Your task to perform on an android device: check battery use Image 0: 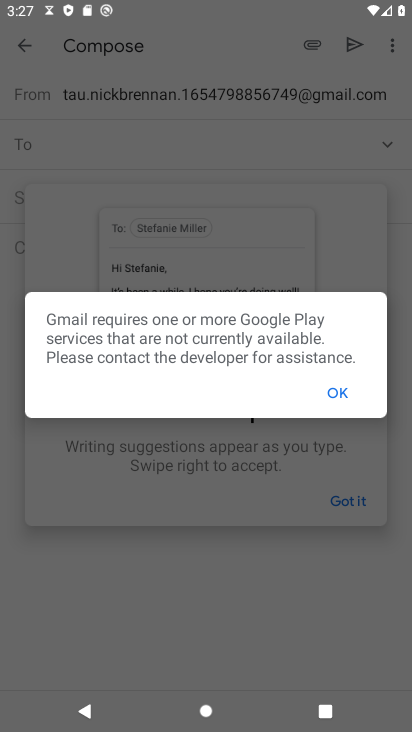
Step 0: press home button
Your task to perform on an android device: check battery use Image 1: 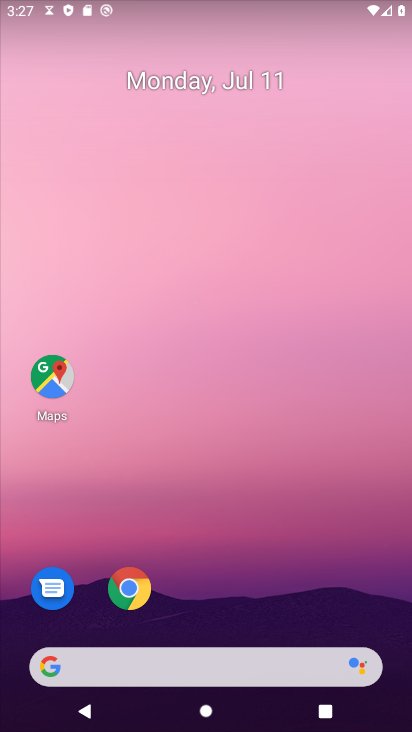
Step 1: drag from (294, 629) to (270, 4)
Your task to perform on an android device: check battery use Image 2: 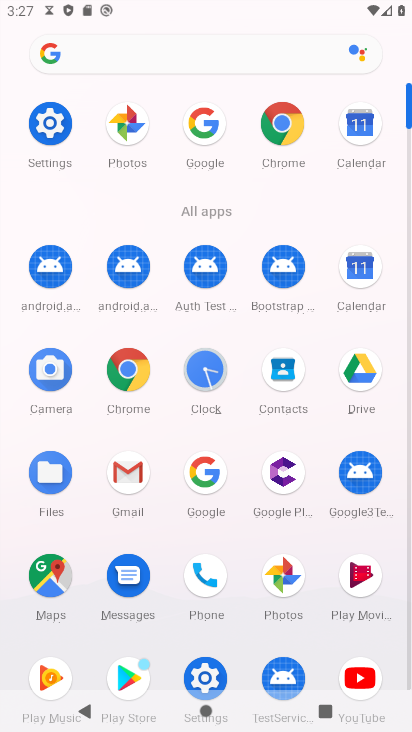
Step 2: click (37, 133)
Your task to perform on an android device: check battery use Image 3: 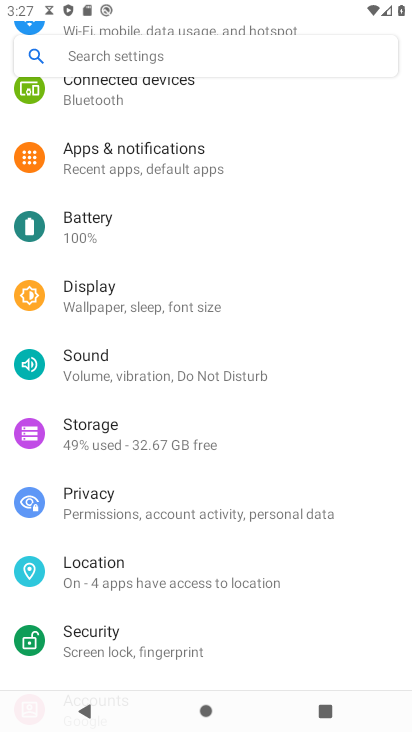
Step 3: drag from (230, 485) to (257, 644)
Your task to perform on an android device: check battery use Image 4: 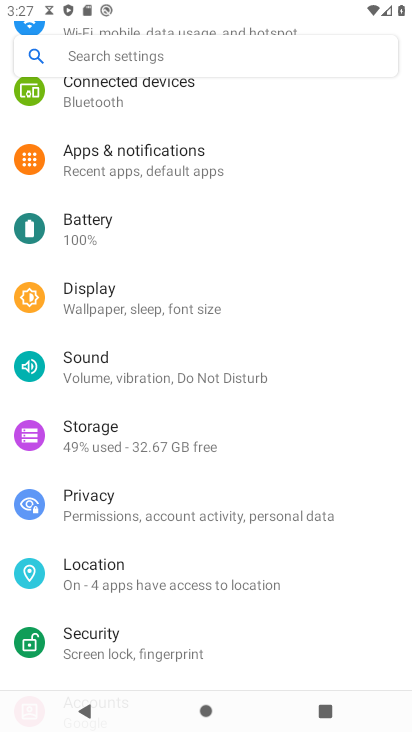
Step 4: click (116, 233)
Your task to perform on an android device: check battery use Image 5: 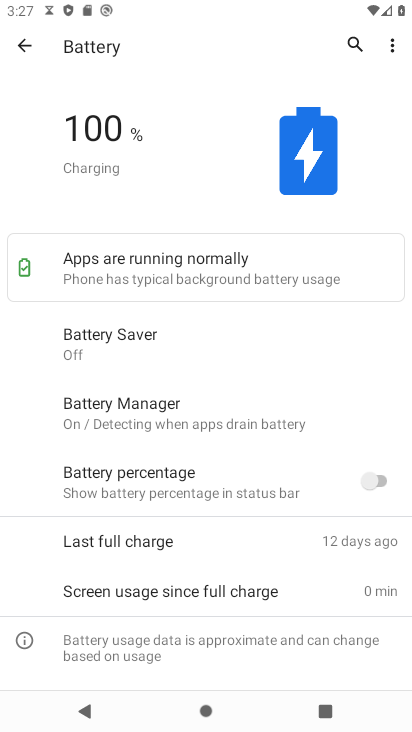
Step 5: click (389, 42)
Your task to perform on an android device: check battery use Image 6: 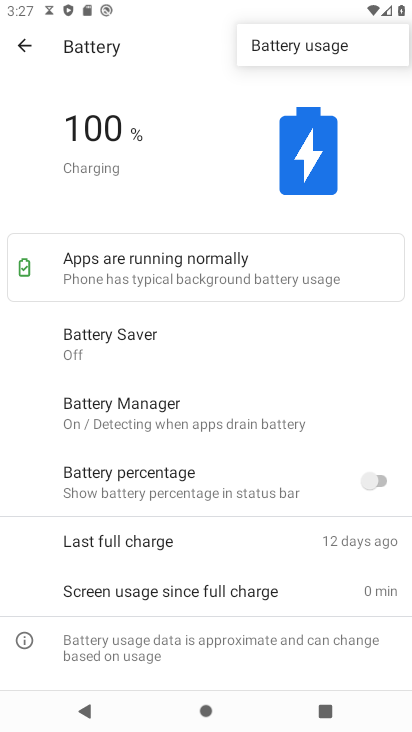
Step 6: click (346, 48)
Your task to perform on an android device: check battery use Image 7: 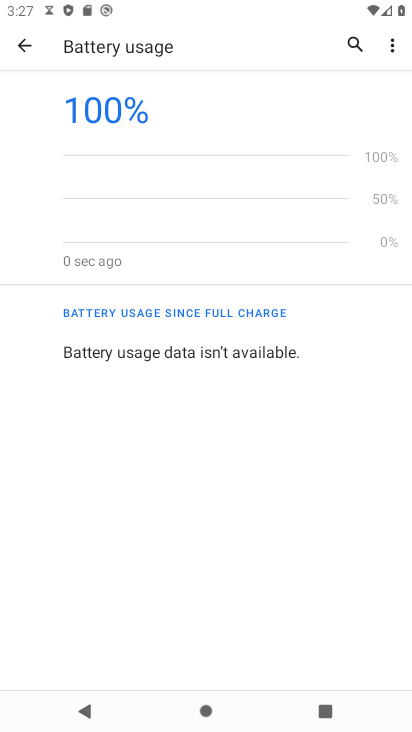
Step 7: task complete